Your task to perform on an android device: What's the weather going to be tomorrow? Image 0: 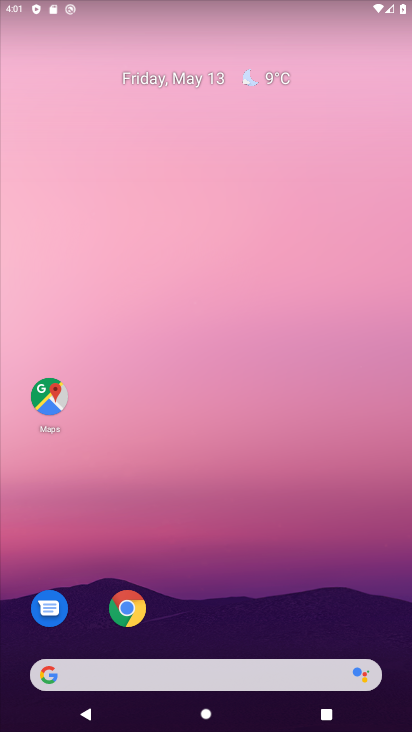
Step 0: click (279, 73)
Your task to perform on an android device: What's the weather going to be tomorrow? Image 1: 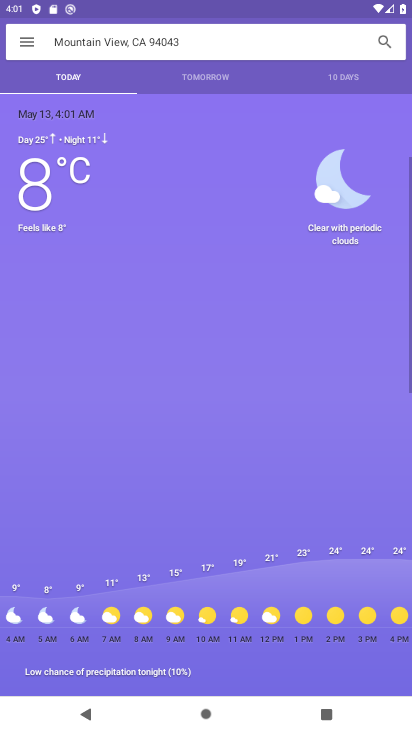
Step 1: click (215, 79)
Your task to perform on an android device: What's the weather going to be tomorrow? Image 2: 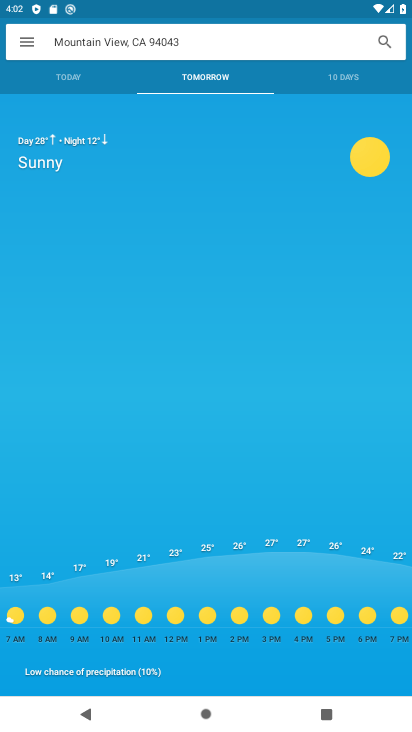
Step 2: task complete